Your task to perform on an android device: allow notifications from all sites in the chrome app Image 0: 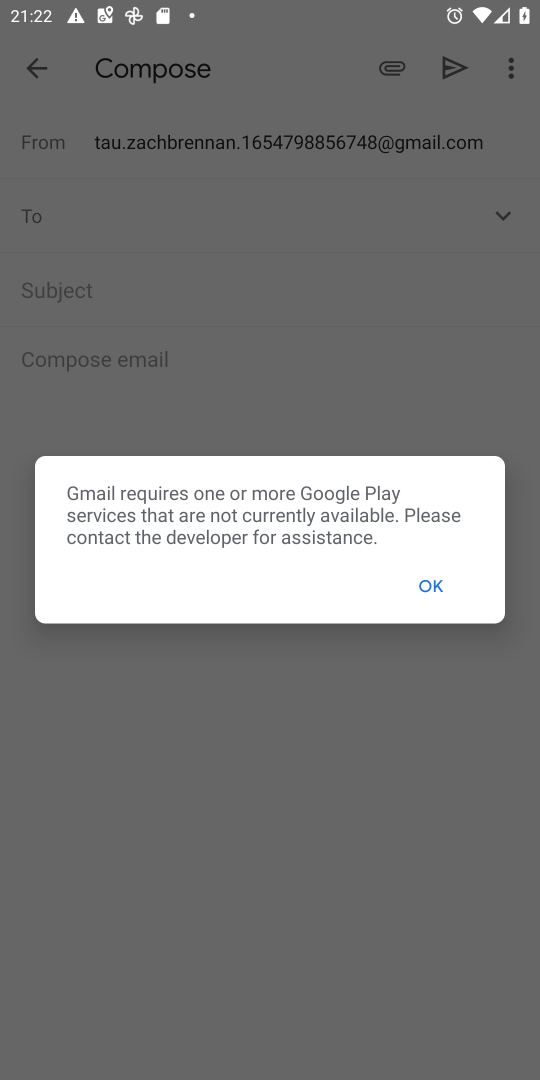
Step 0: press home button
Your task to perform on an android device: allow notifications from all sites in the chrome app Image 1: 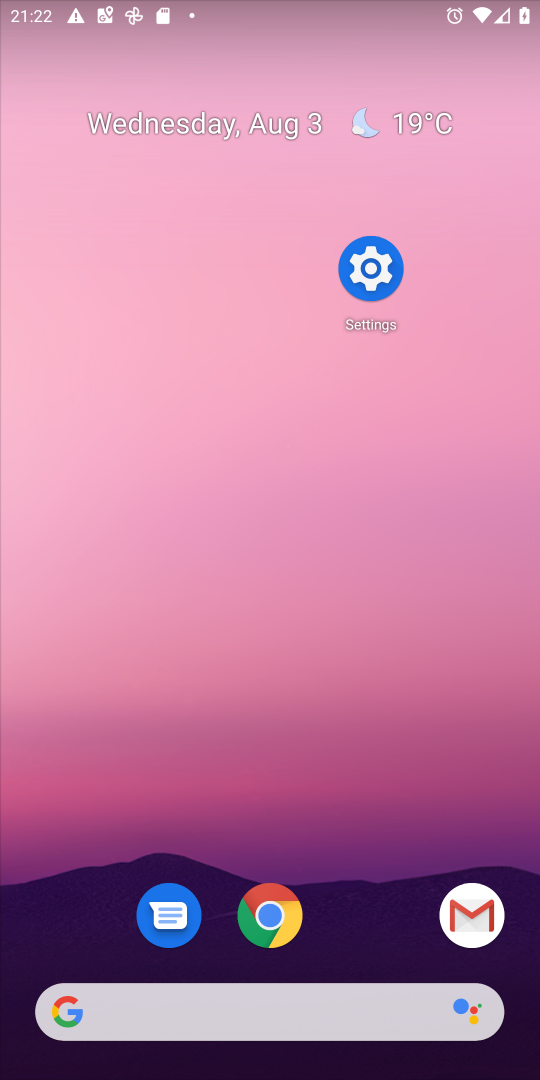
Step 1: drag from (333, 969) to (384, 380)
Your task to perform on an android device: allow notifications from all sites in the chrome app Image 2: 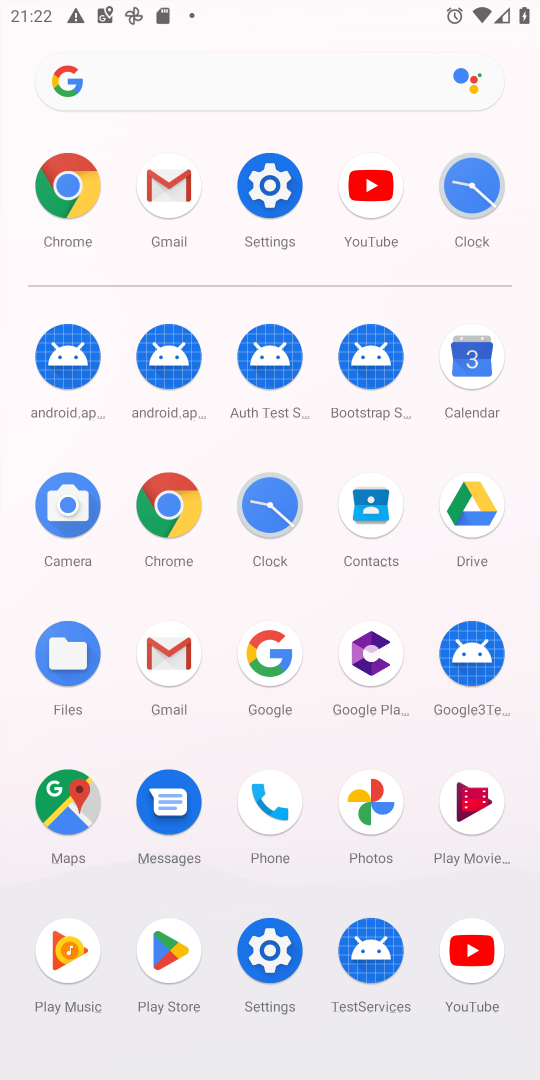
Step 2: click (265, 203)
Your task to perform on an android device: allow notifications from all sites in the chrome app Image 3: 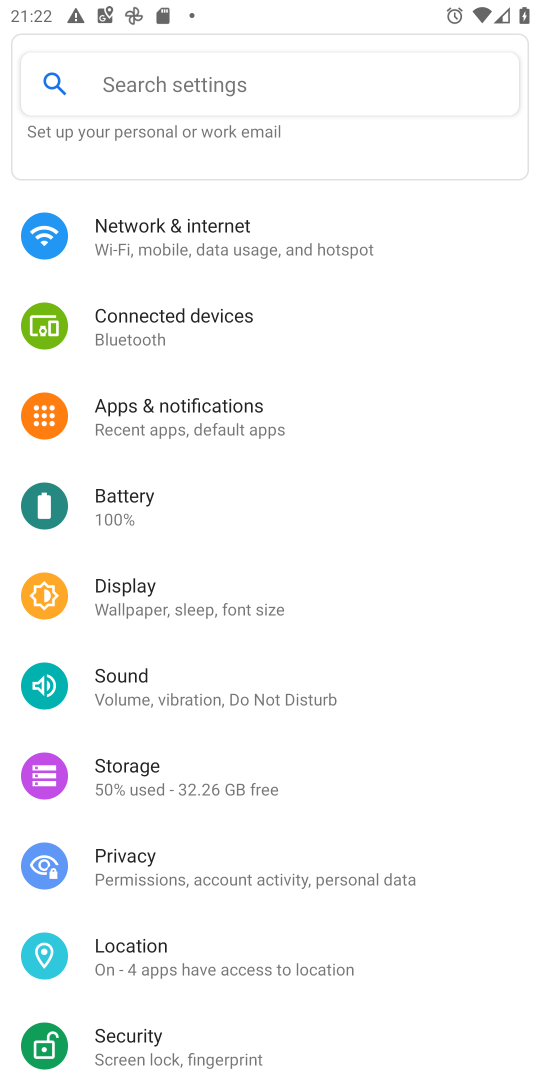
Step 3: click (205, 71)
Your task to perform on an android device: allow notifications from all sites in the chrome app Image 4: 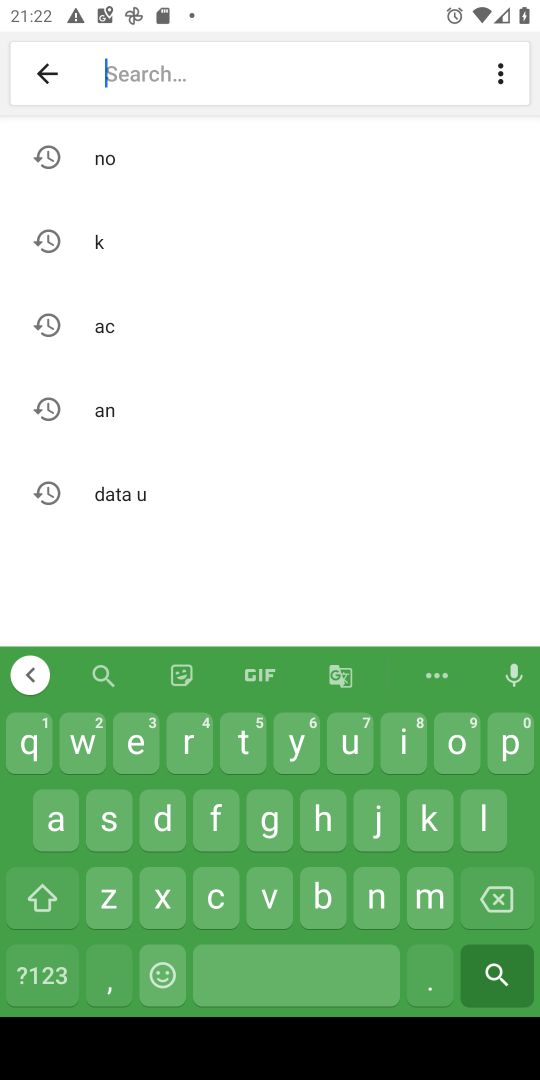
Step 4: click (136, 164)
Your task to perform on an android device: allow notifications from all sites in the chrome app Image 5: 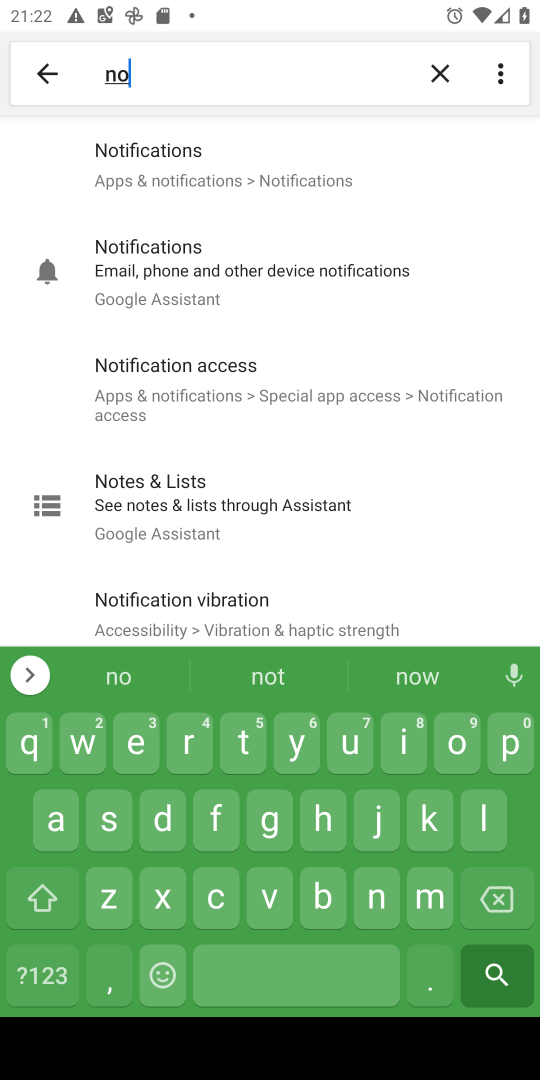
Step 5: click (163, 183)
Your task to perform on an android device: allow notifications from all sites in the chrome app Image 6: 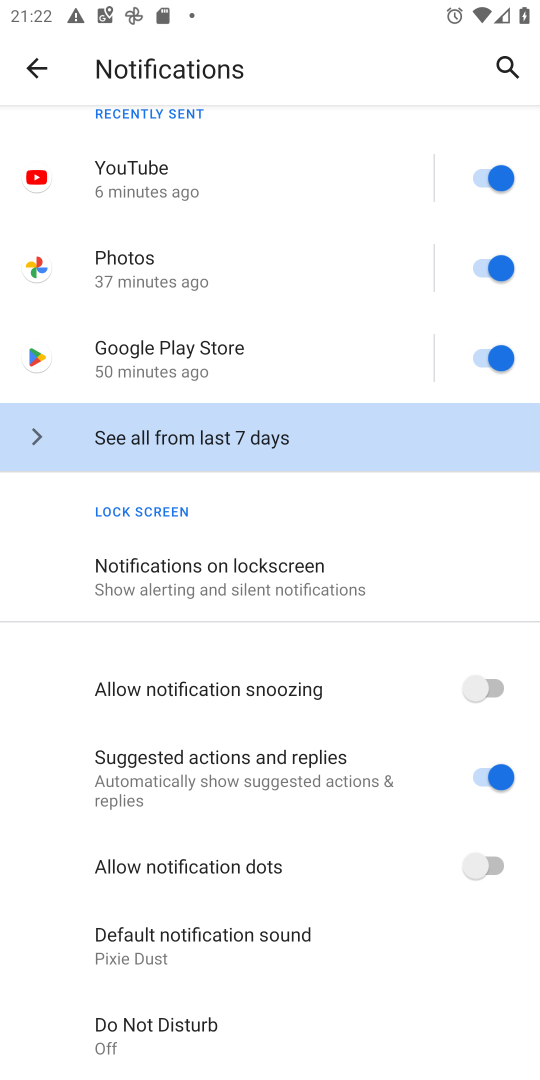
Step 6: click (180, 555)
Your task to perform on an android device: allow notifications from all sites in the chrome app Image 7: 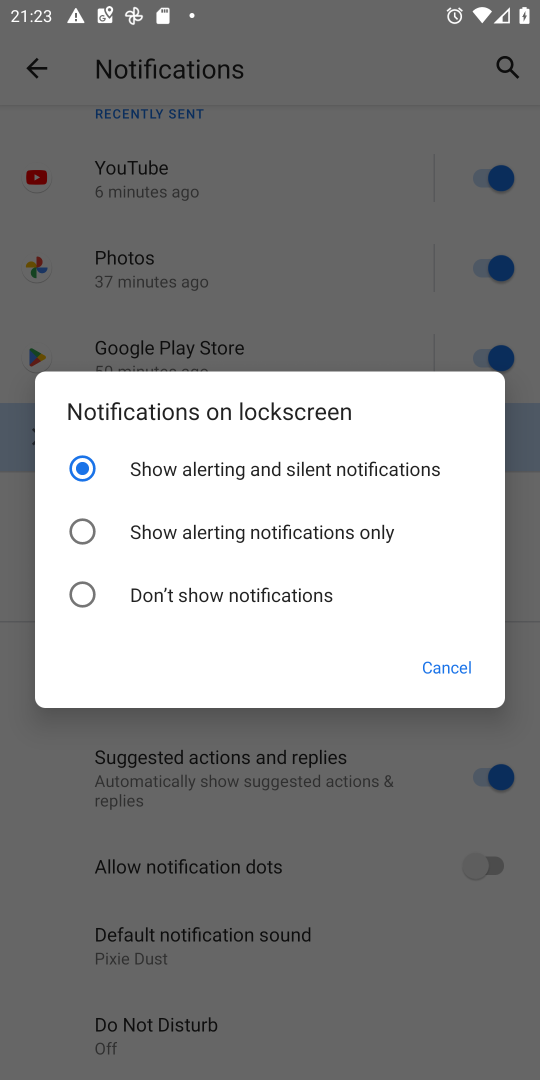
Step 7: click (262, 320)
Your task to perform on an android device: allow notifications from all sites in the chrome app Image 8: 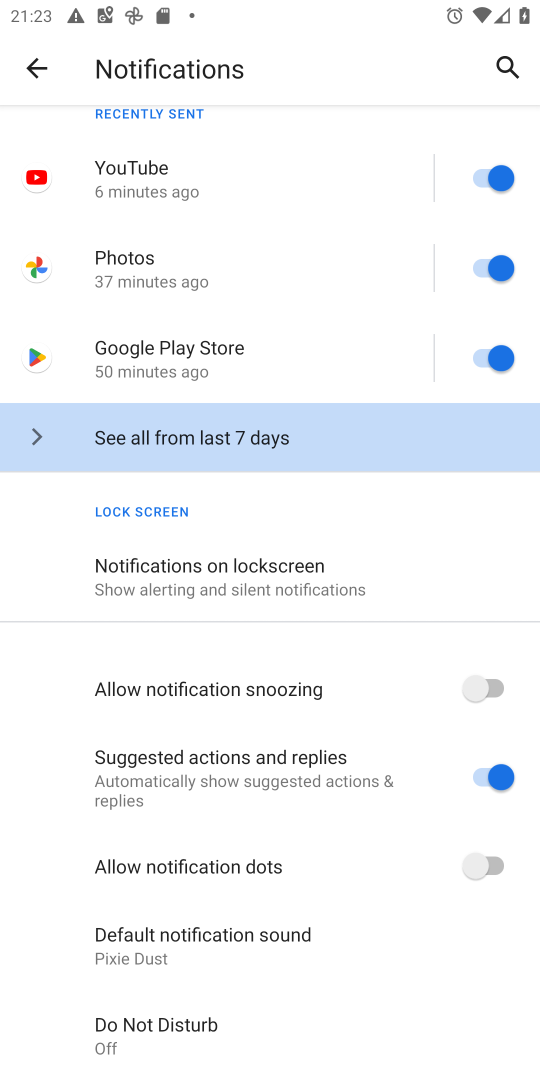
Step 8: click (208, 564)
Your task to perform on an android device: allow notifications from all sites in the chrome app Image 9: 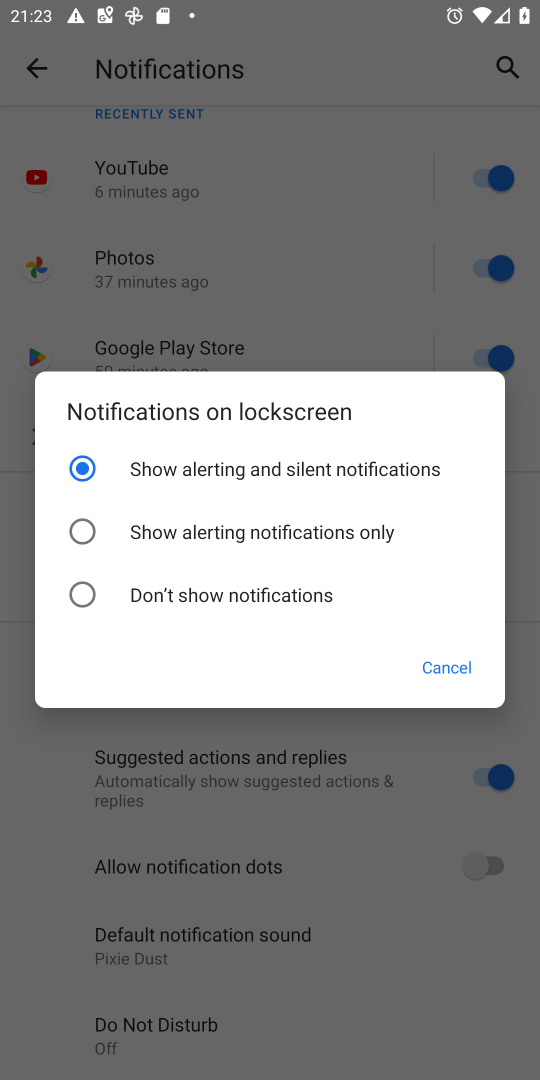
Step 9: task complete